Your task to perform on an android device: install app "Grab" Image 0: 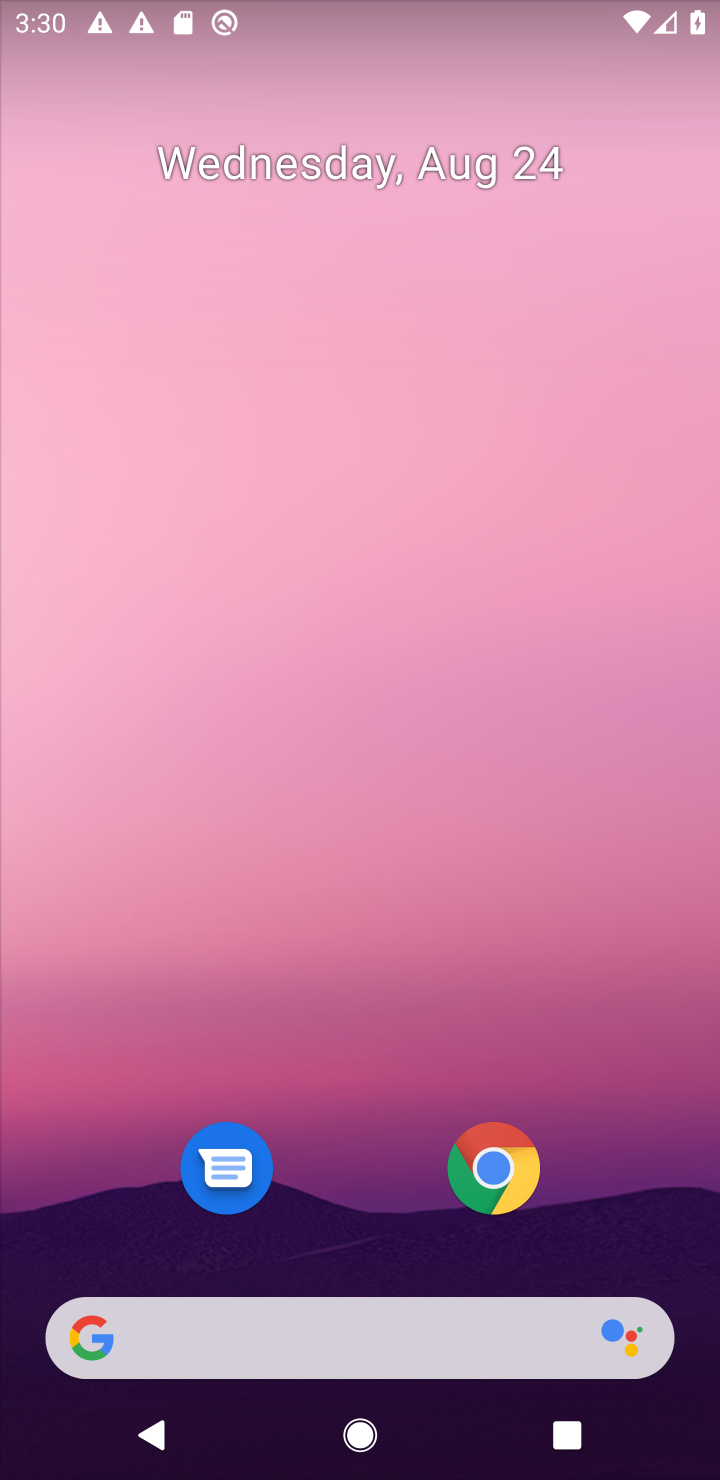
Step 0: drag from (676, 1247) to (567, 208)
Your task to perform on an android device: install app "Grab" Image 1: 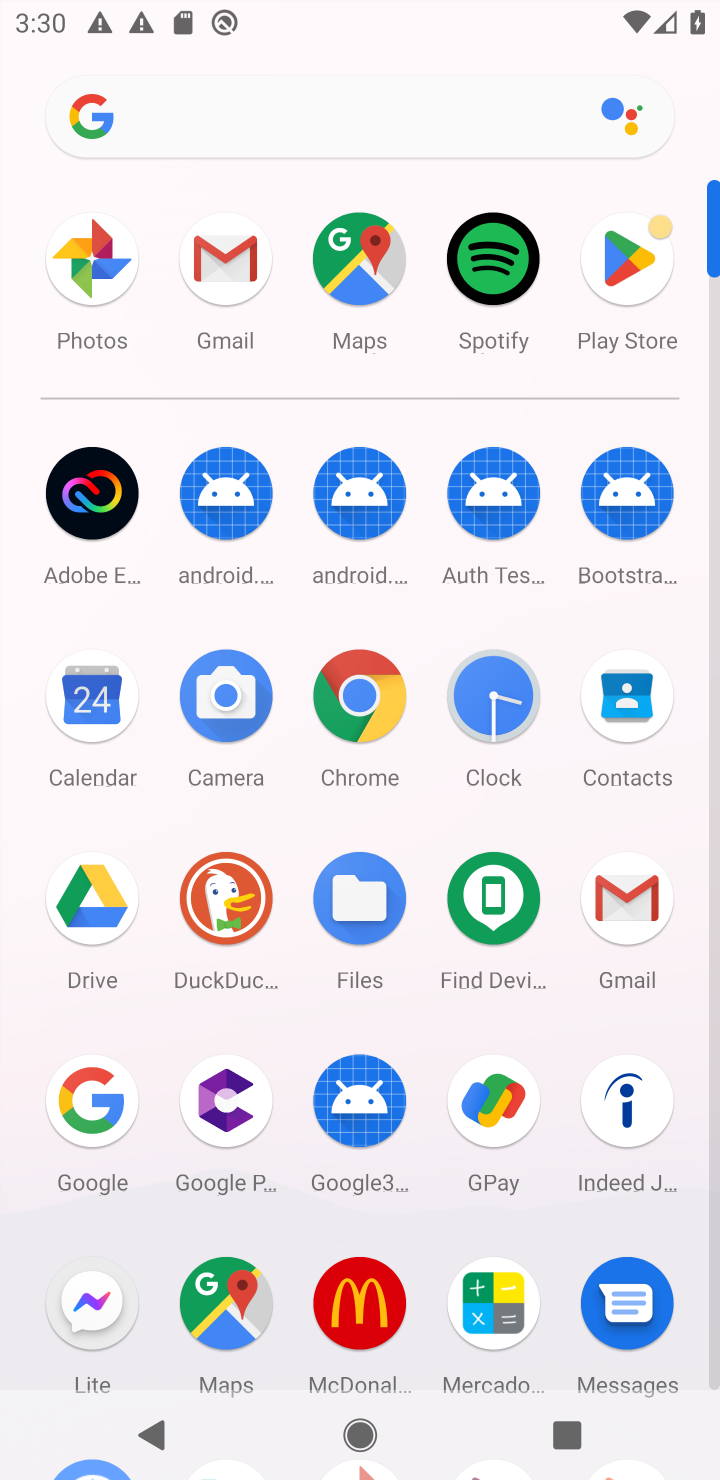
Step 1: click (714, 1294)
Your task to perform on an android device: install app "Grab" Image 2: 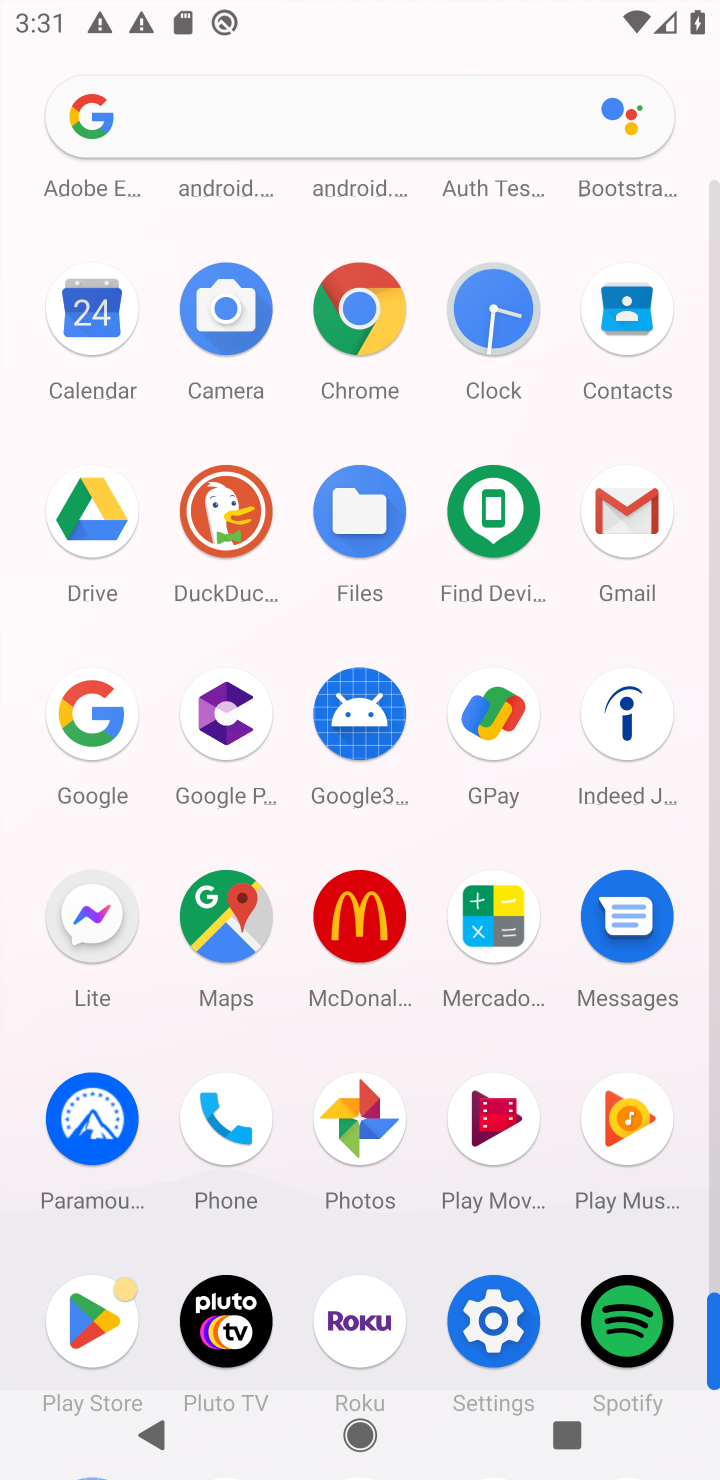
Step 2: click (96, 1309)
Your task to perform on an android device: install app "Grab" Image 3: 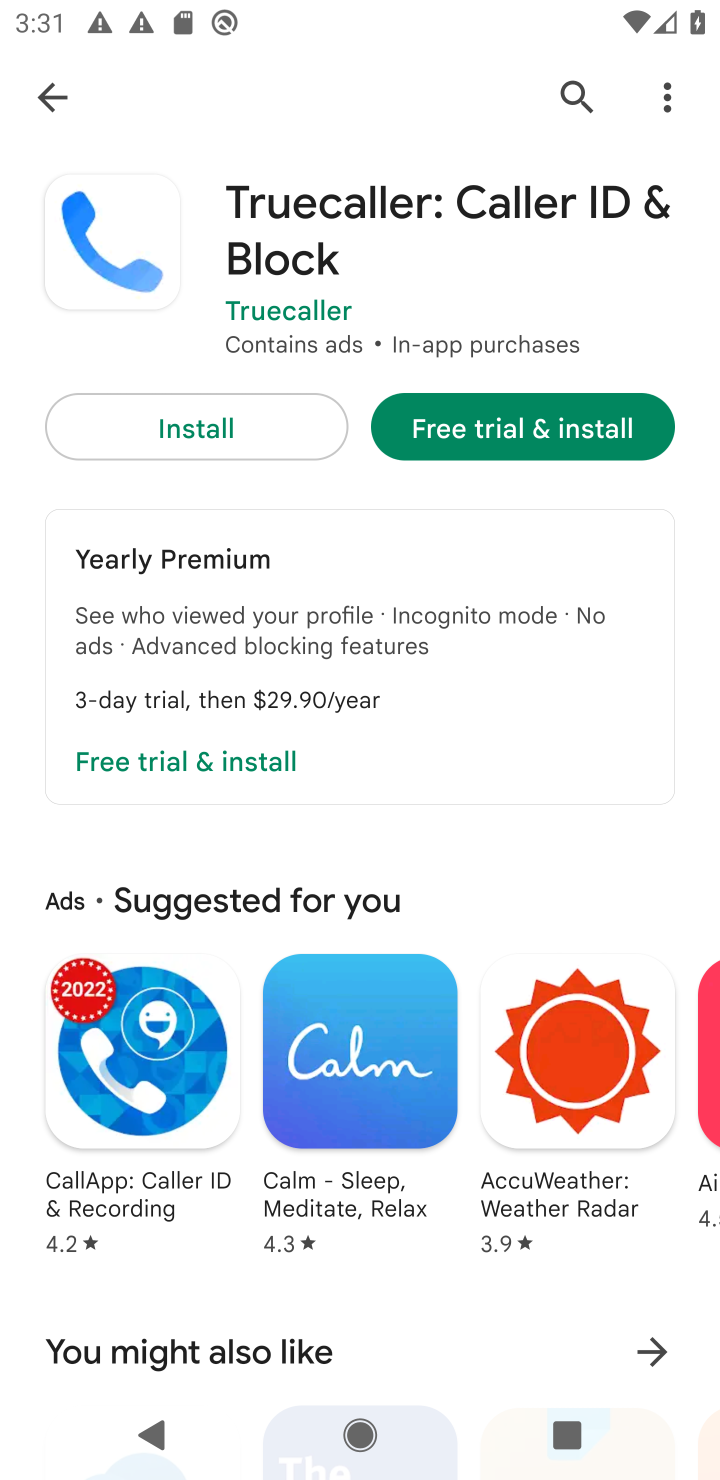
Step 3: click (580, 82)
Your task to perform on an android device: install app "Grab" Image 4: 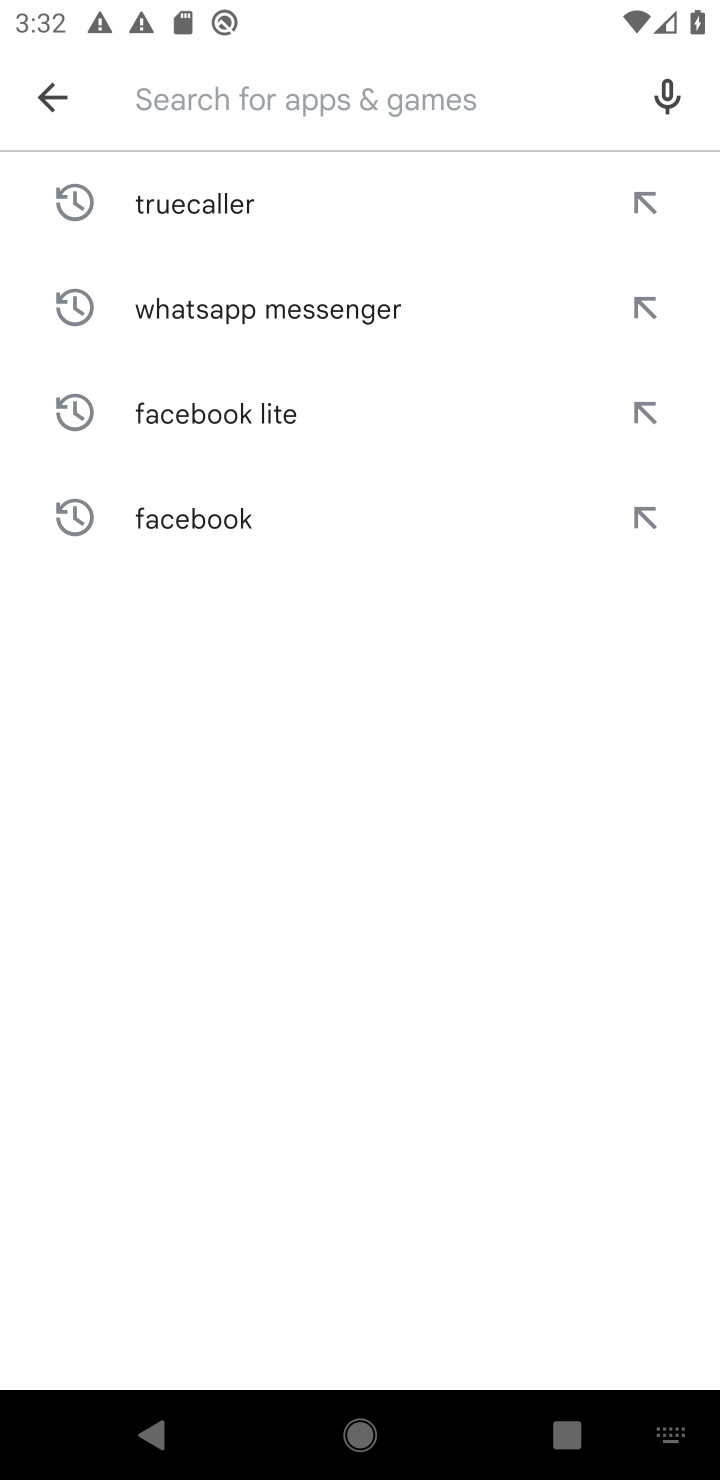
Step 4: type "Grab"
Your task to perform on an android device: install app "Grab" Image 5: 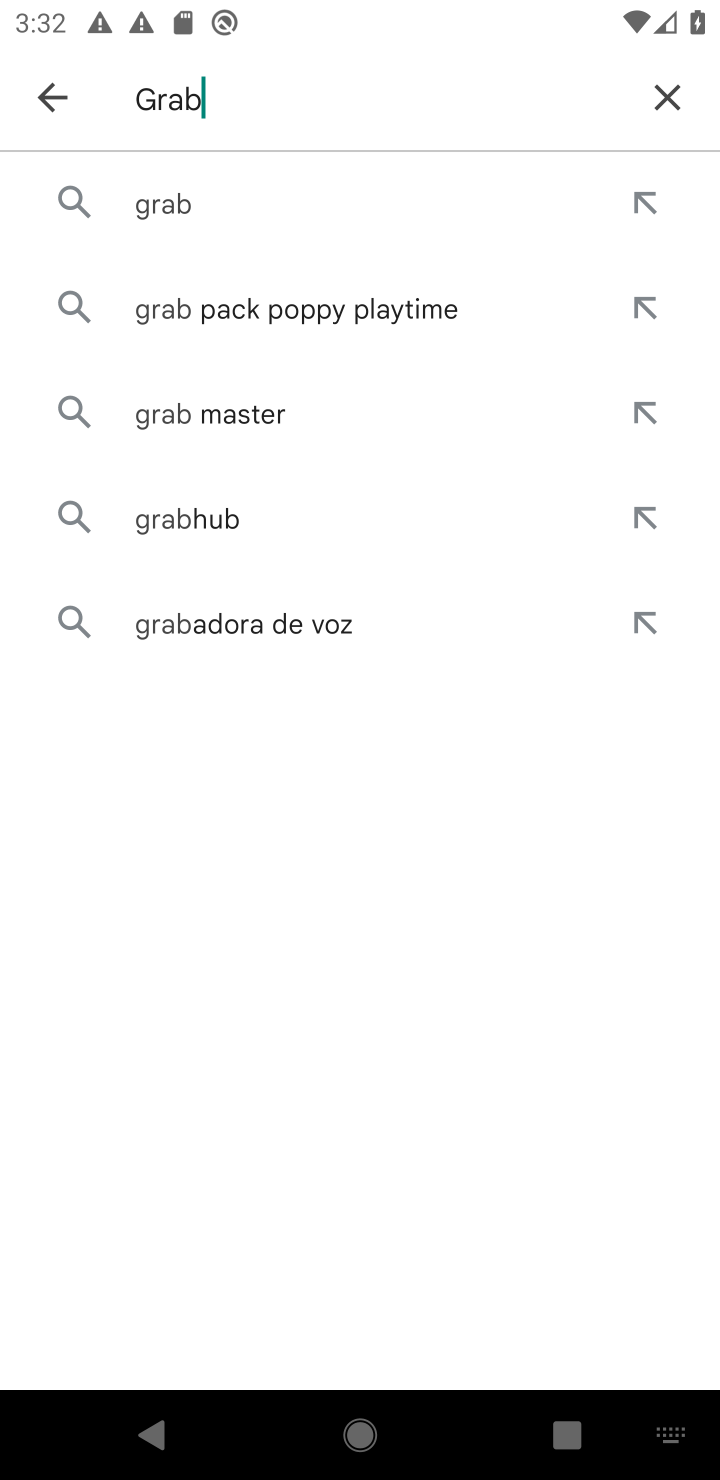
Step 5: click (146, 179)
Your task to perform on an android device: install app "Grab" Image 6: 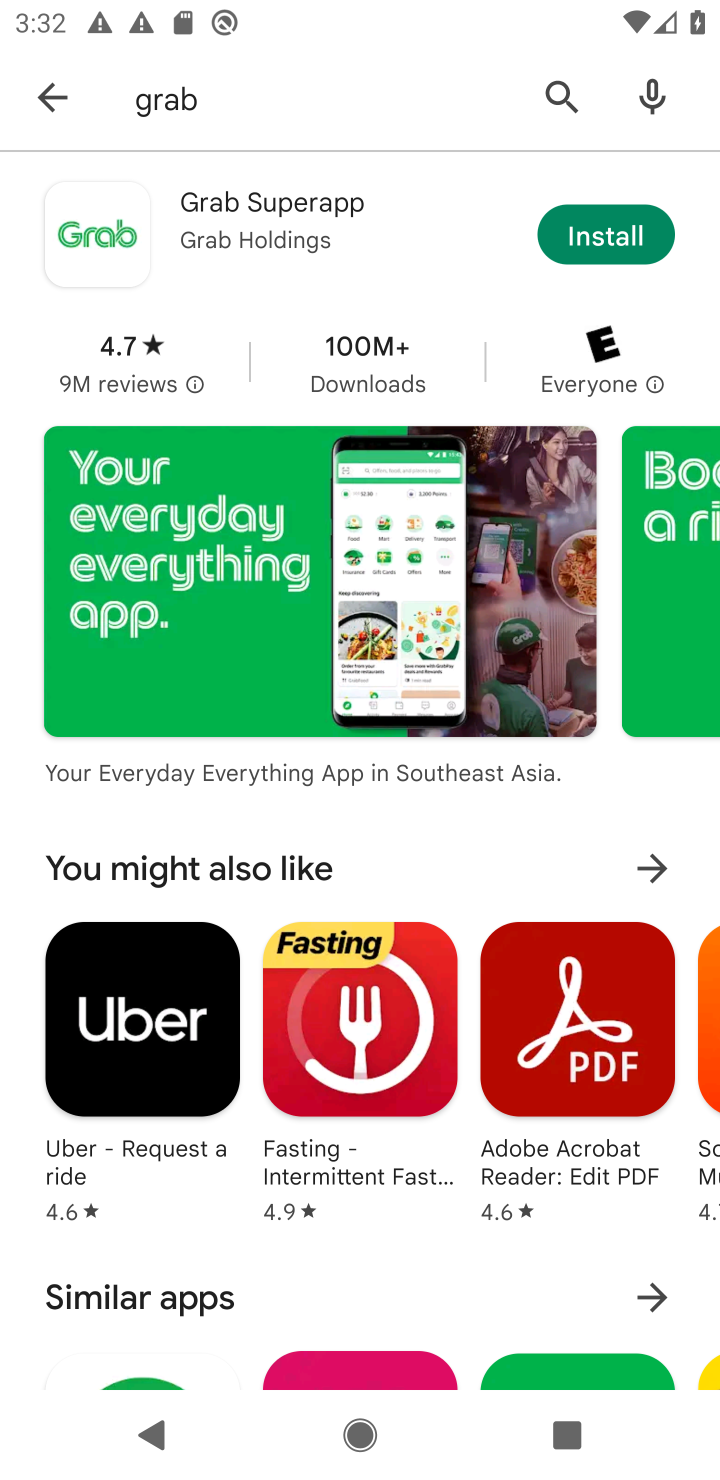
Step 6: click (222, 231)
Your task to perform on an android device: install app "Grab" Image 7: 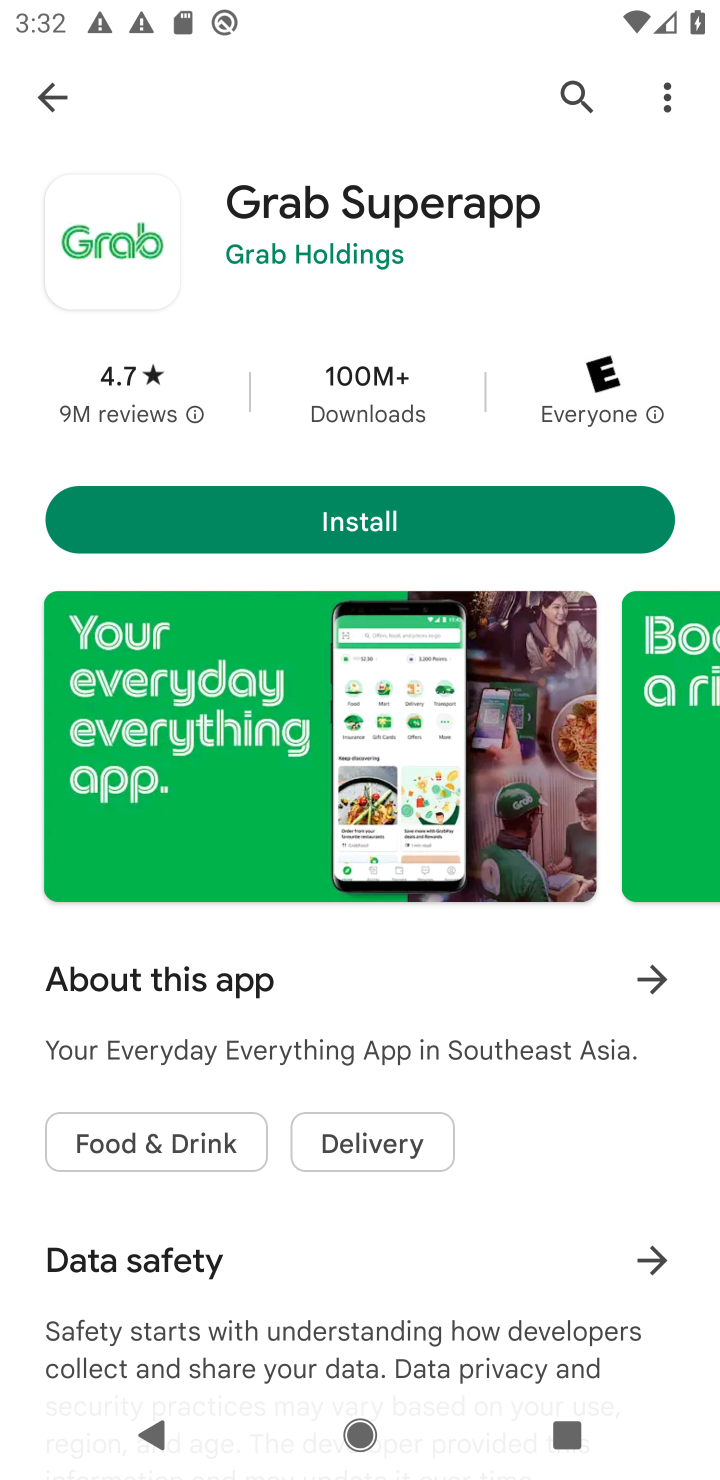
Step 7: click (363, 517)
Your task to perform on an android device: install app "Grab" Image 8: 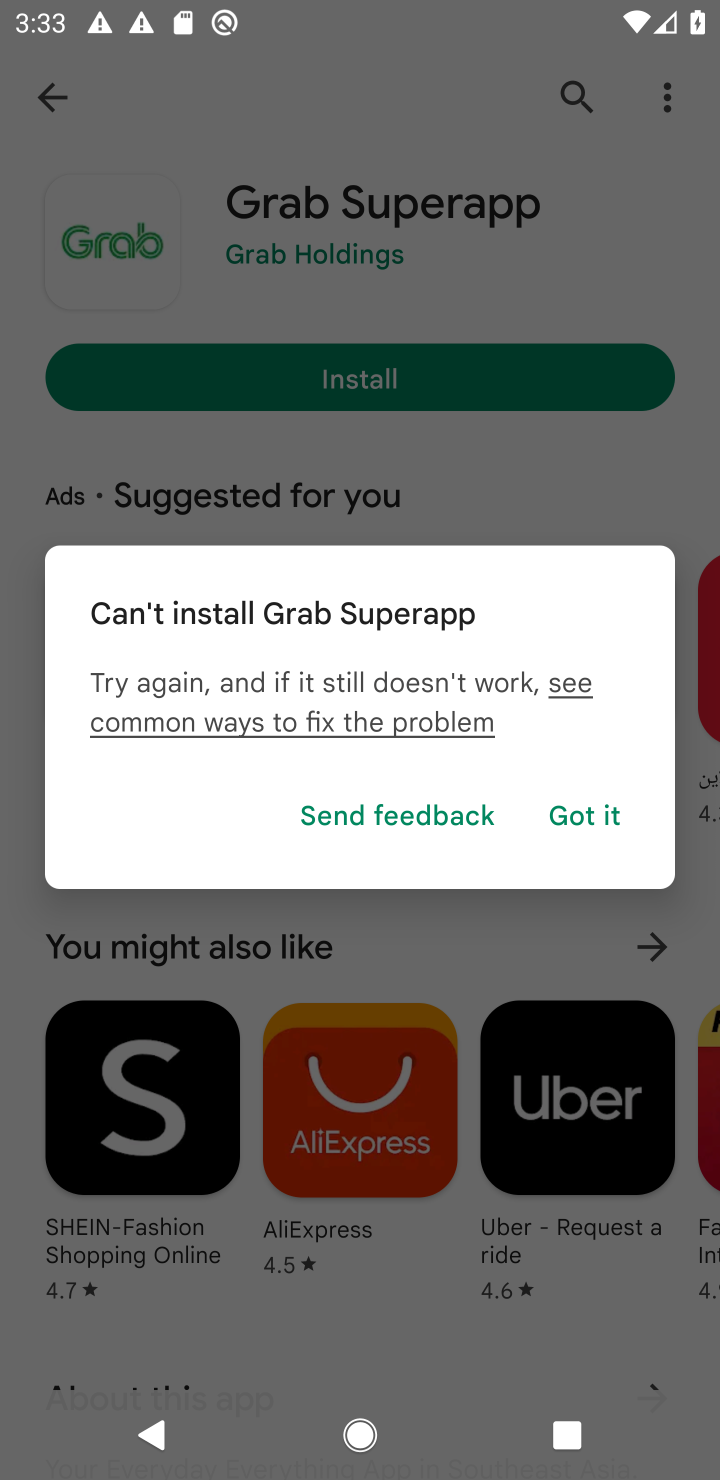
Step 8: click (593, 806)
Your task to perform on an android device: install app "Grab" Image 9: 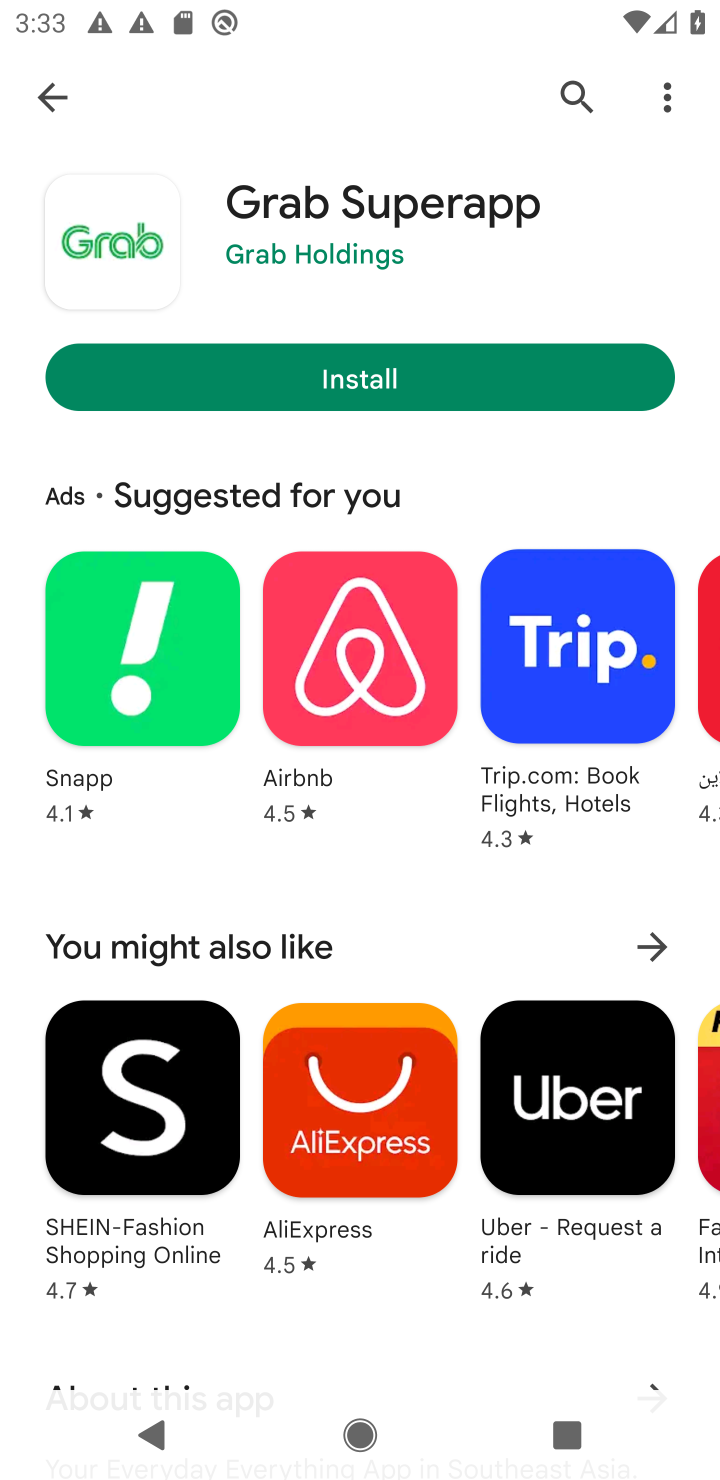
Step 9: task complete